Your task to perform on an android device: What's the US dollar exchange rate against the Euro? Image 0: 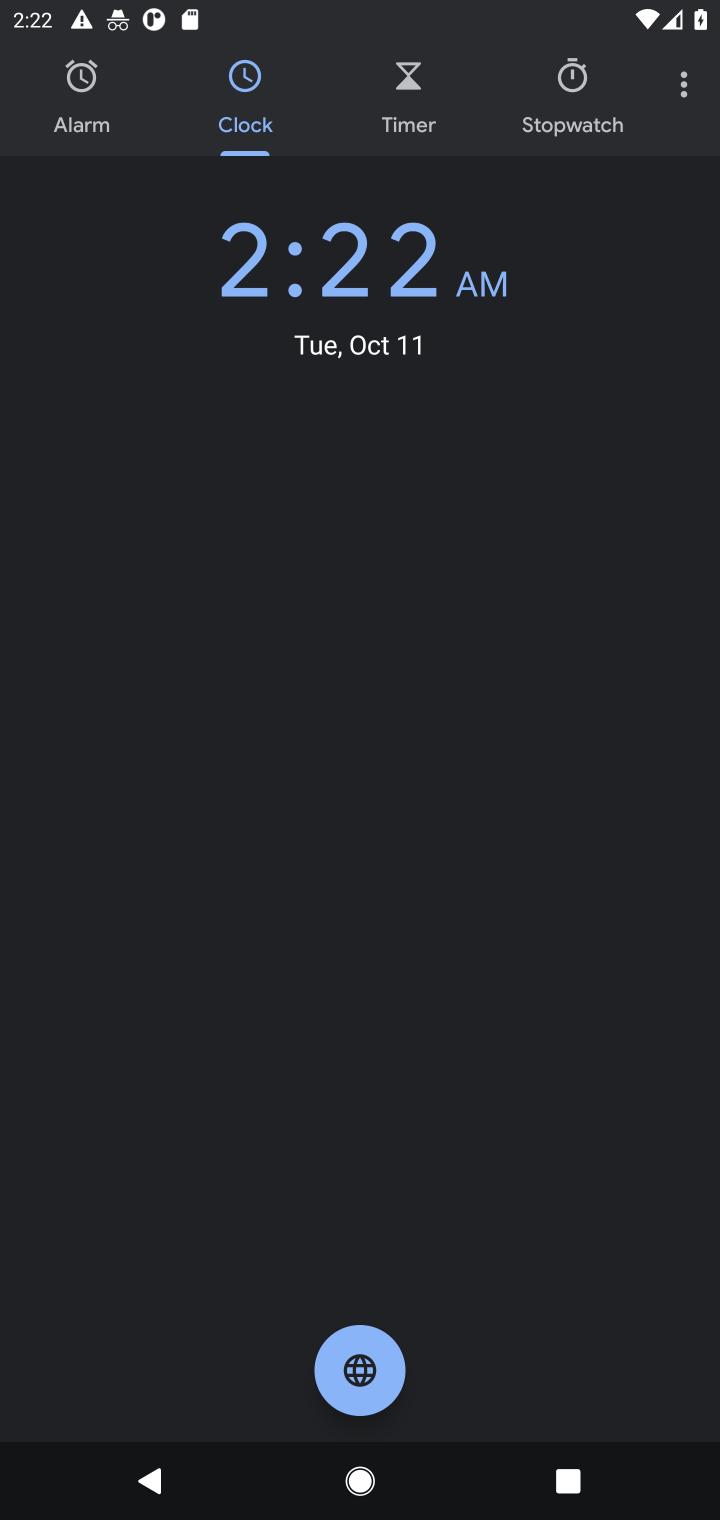
Step 0: press home button
Your task to perform on an android device: What's the US dollar exchange rate against the Euro? Image 1: 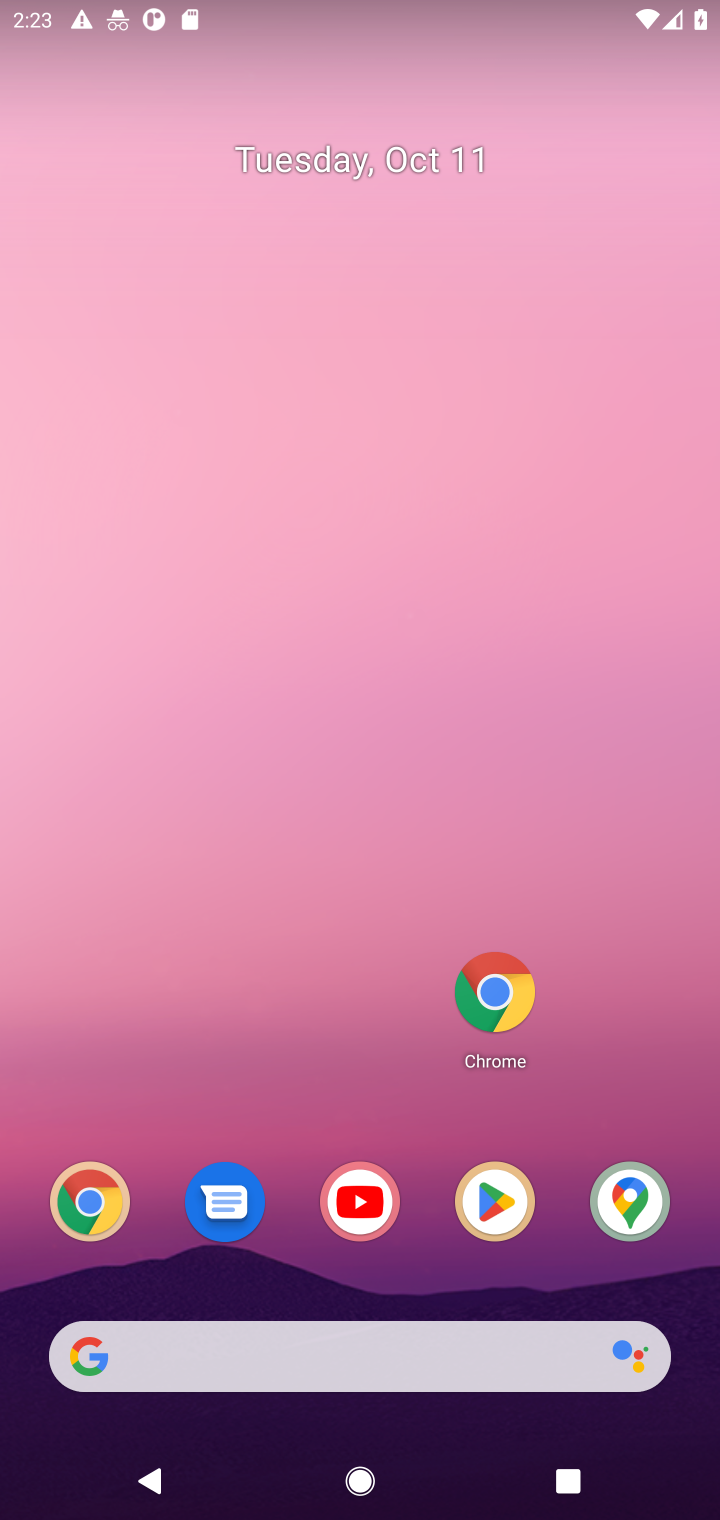
Step 1: click (489, 990)
Your task to perform on an android device: What's the US dollar exchange rate against the Euro? Image 2: 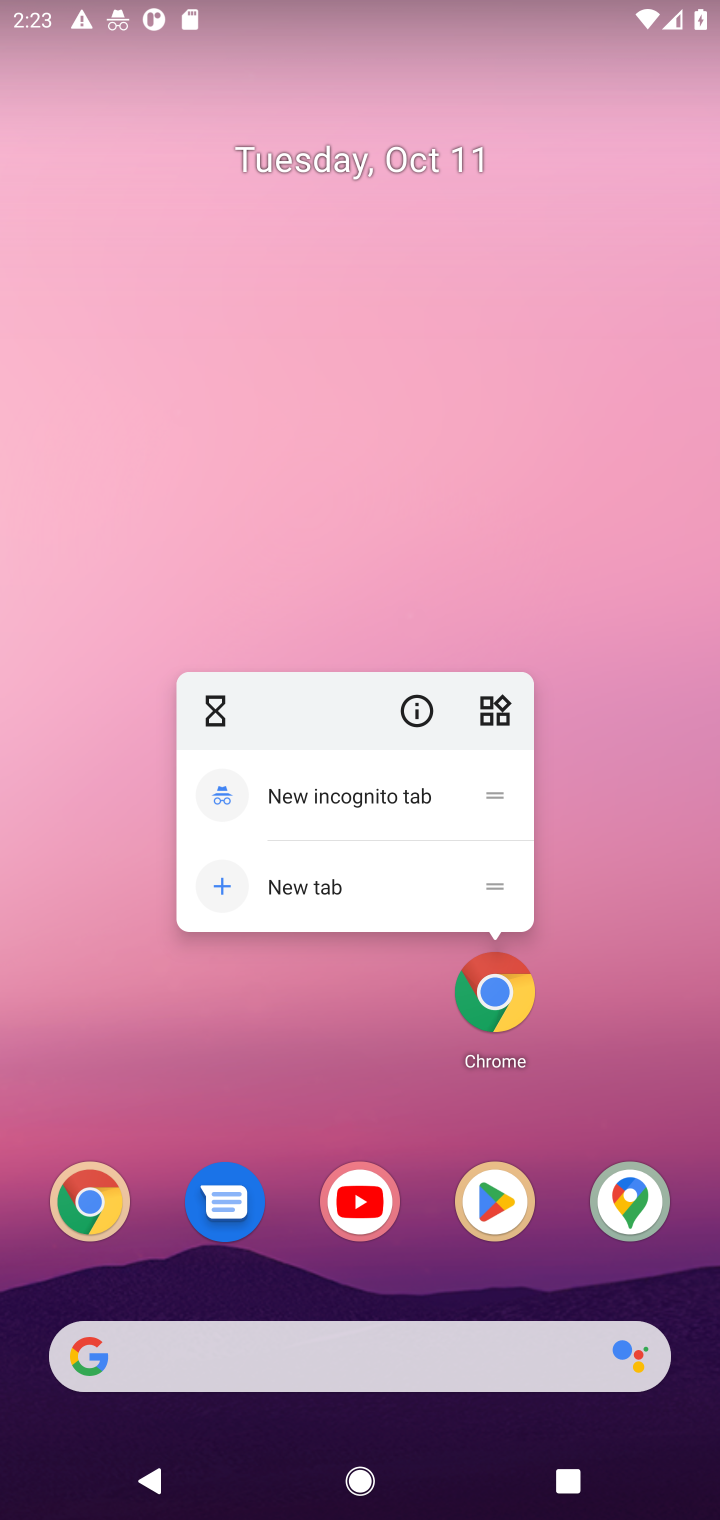
Step 2: click (489, 996)
Your task to perform on an android device: What's the US dollar exchange rate against the Euro? Image 3: 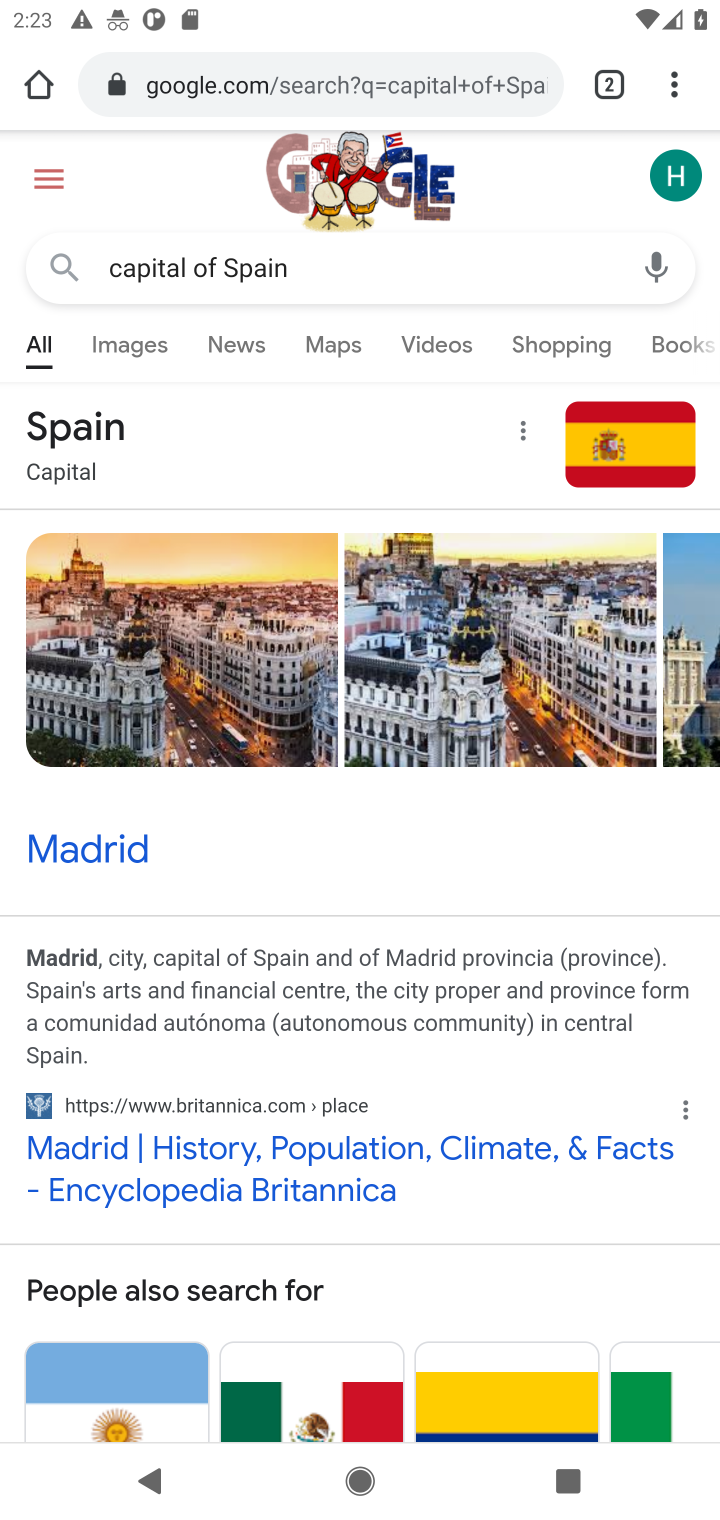
Step 3: click (500, 89)
Your task to perform on an android device: What's the US dollar exchange rate against the Euro? Image 4: 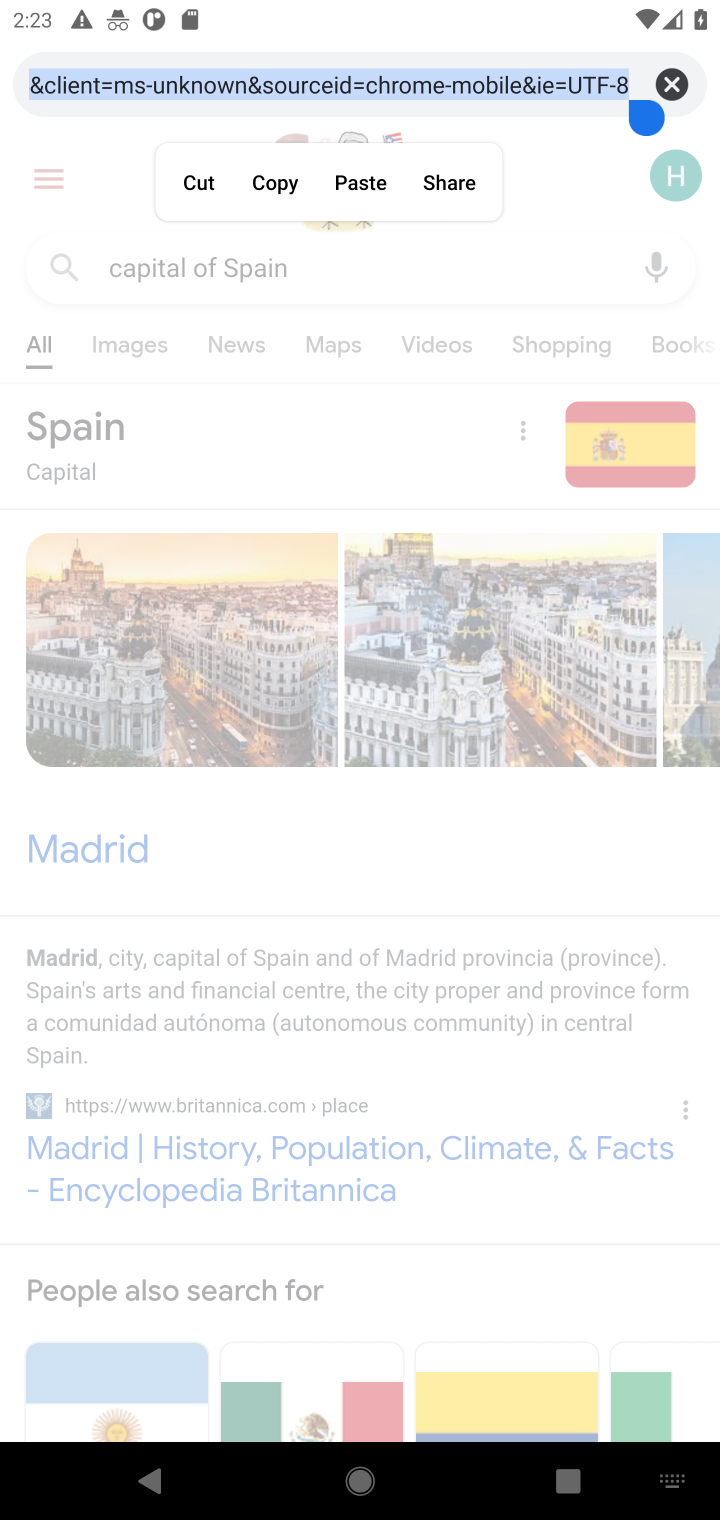
Step 4: click (665, 81)
Your task to perform on an android device: What's the US dollar exchange rate against the Euro? Image 5: 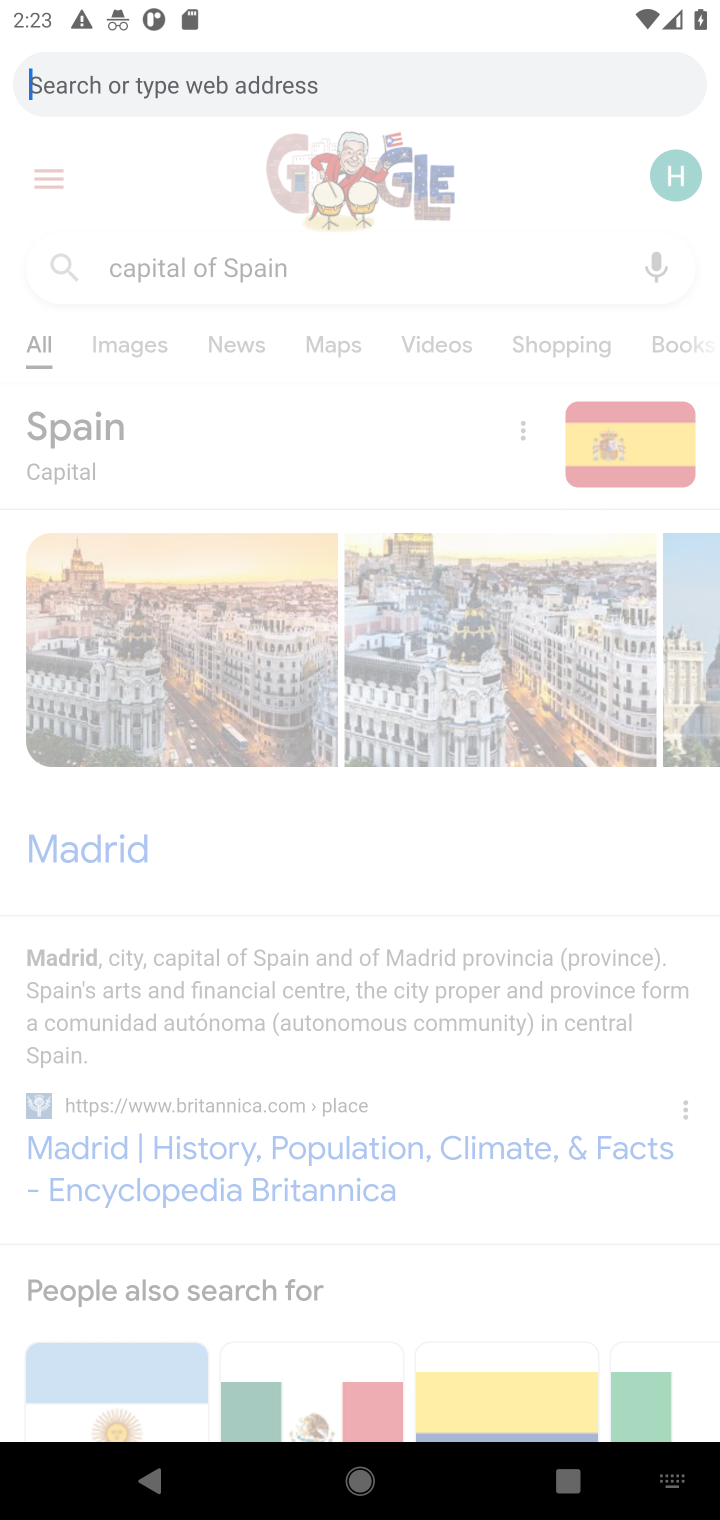
Step 5: press enter
Your task to perform on an android device: What's the US dollar exchange rate against the Euro? Image 6: 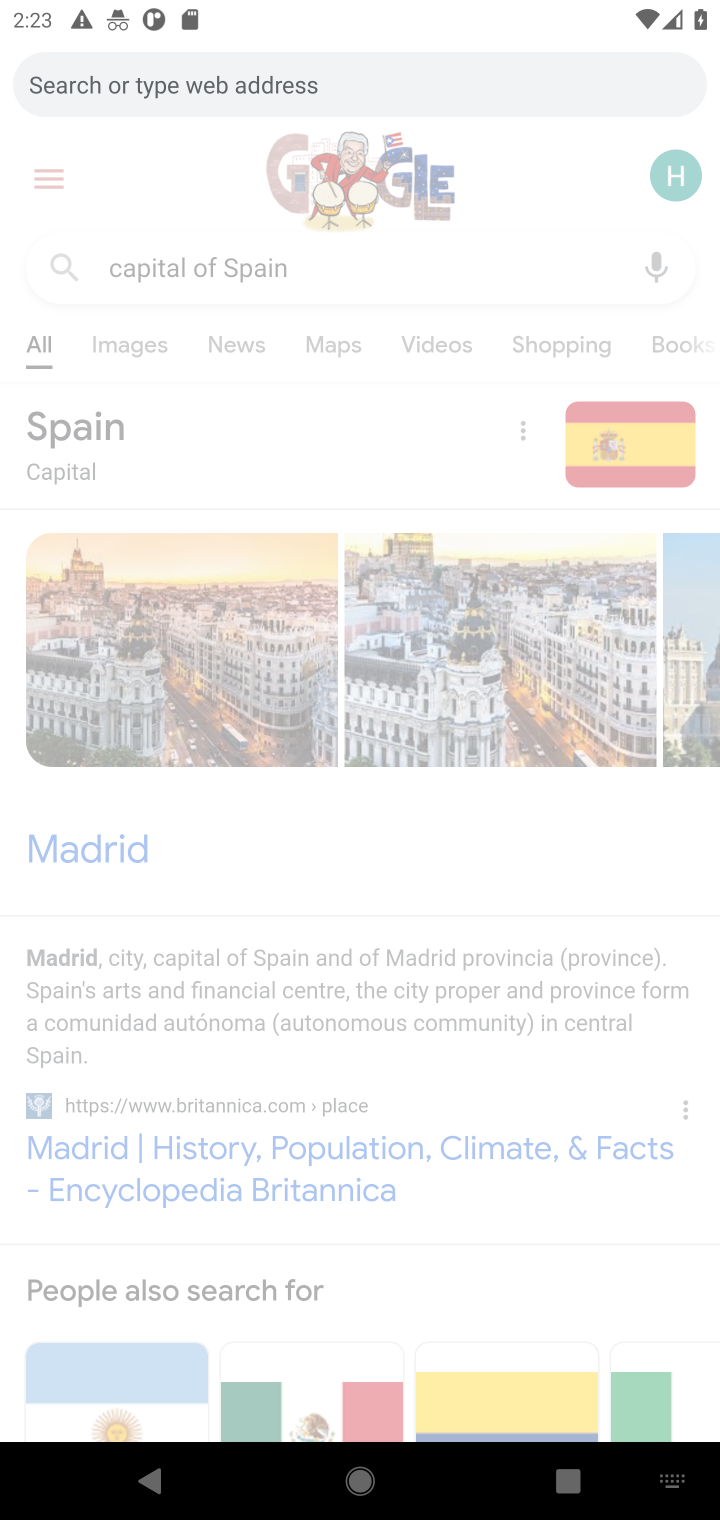
Step 6: type "US dollar exchange rate against the Euro"
Your task to perform on an android device: What's the US dollar exchange rate against the Euro? Image 7: 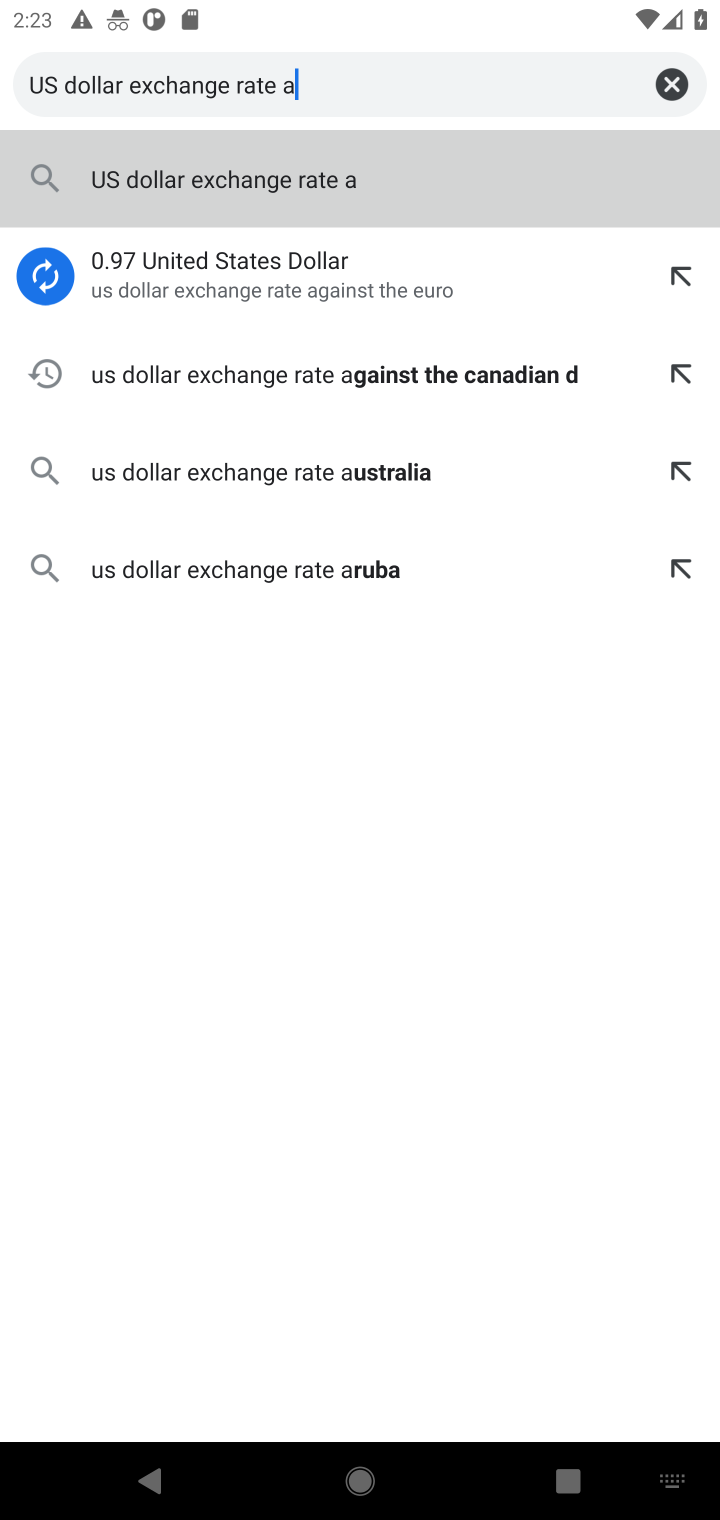
Step 7: click (343, 289)
Your task to perform on an android device: What's the US dollar exchange rate against the Euro? Image 8: 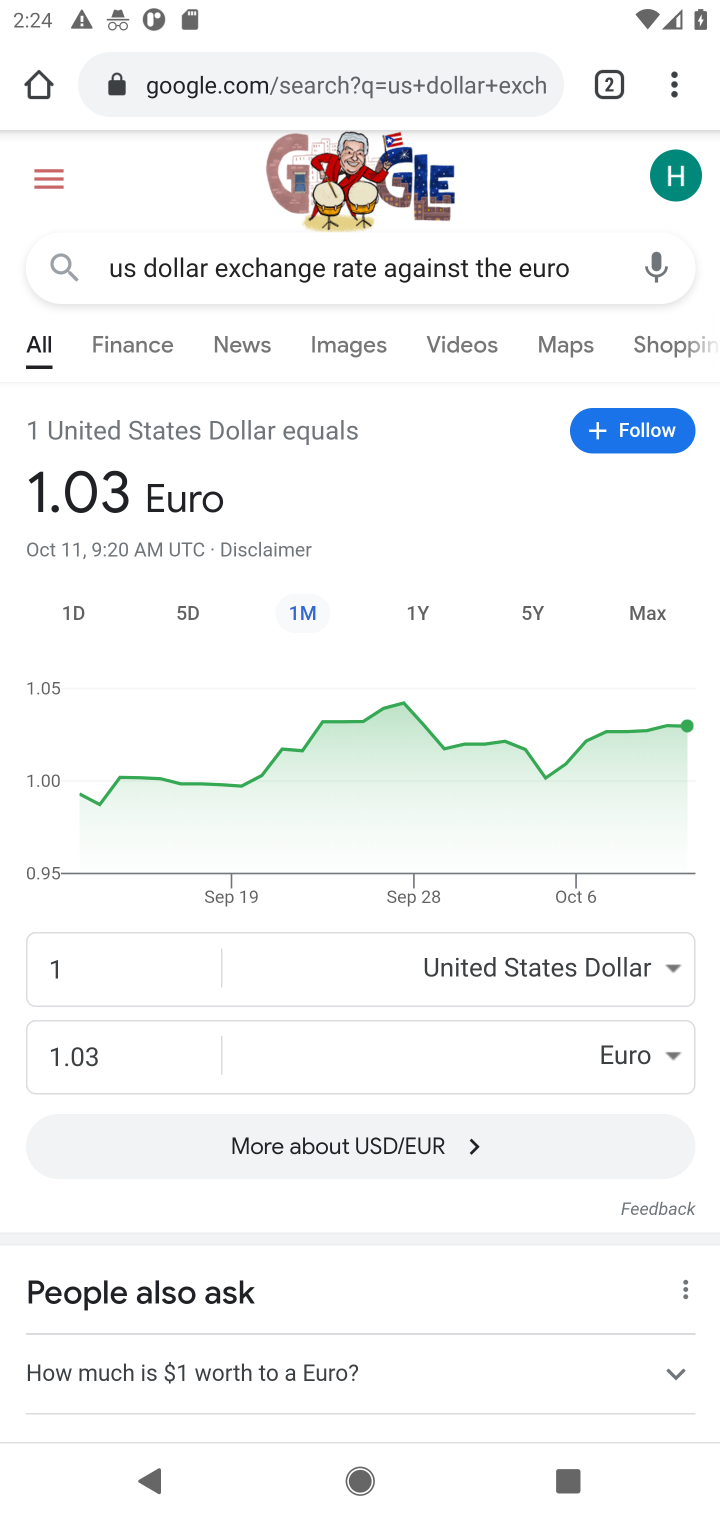
Step 8: task complete